Your task to perform on an android device: toggle pop-ups in chrome Image 0: 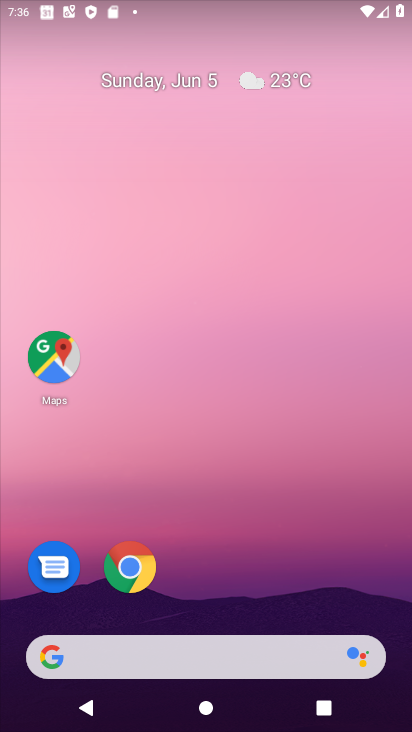
Step 0: drag from (378, 625) to (260, 182)
Your task to perform on an android device: toggle pop-ups in chrome Image 1: 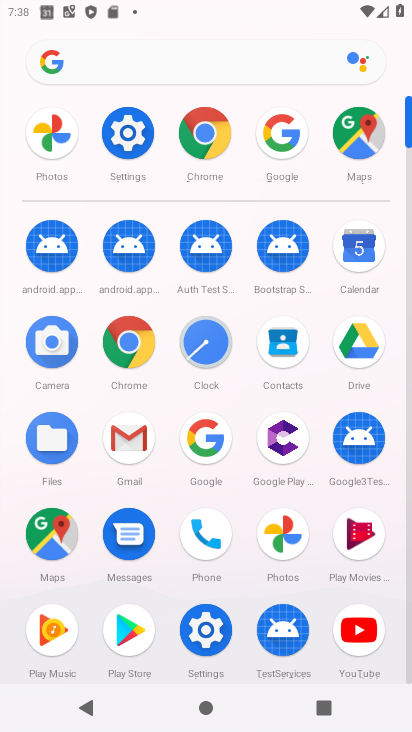
Step 1: click (200, 149)
Your task to perform on an android device: toggle pop-ups in chrome Image 2: 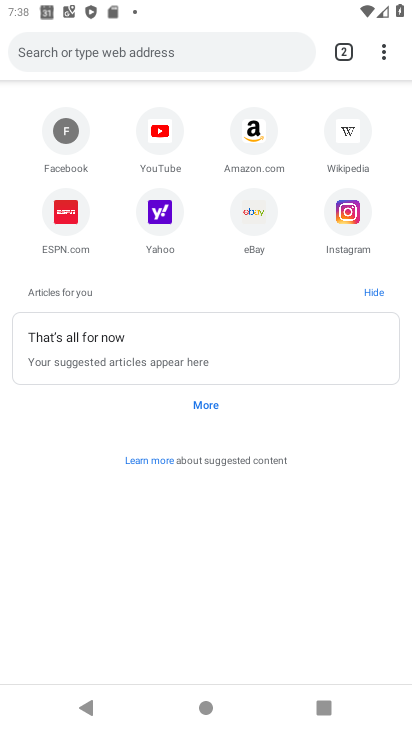
Step 2: click (385, 48)
Your task to perform on an android device: toggle pop-ups in chrome Image 3: 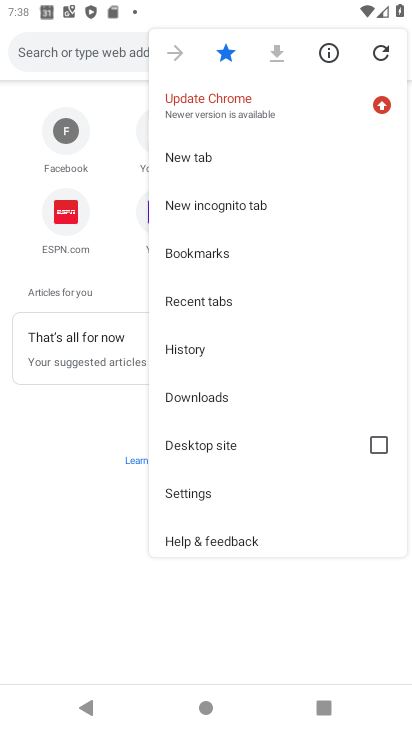
Step 3: click (221, 506)
Your task to perform on an android device: toggle pop-ups in chrome Image 4: 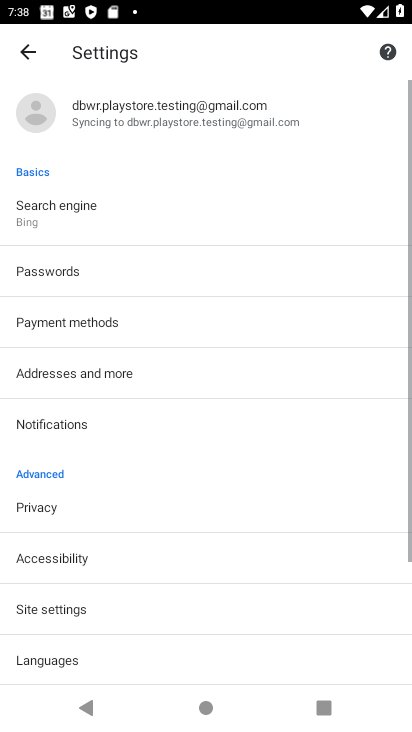
Step 4: click (103, 618)
Your task to perform on an android device: toggle pop-ups in chrome Image 5: 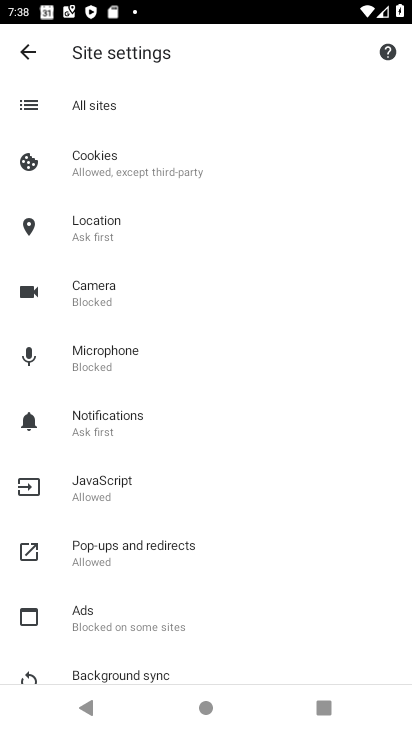
Step 5: click (139, 564)
Your task to perform on an android device: toggle pop-ups in chrome Image 6: 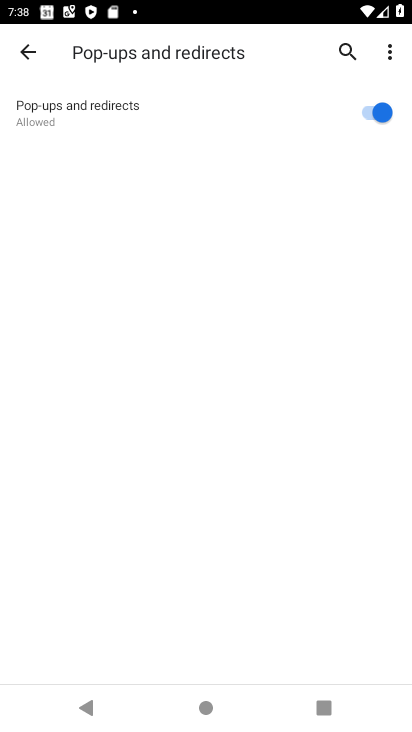
Step 6: click (364, 105)
Your task to perform on an android device: toggle pop-ups in chrome Image 7: 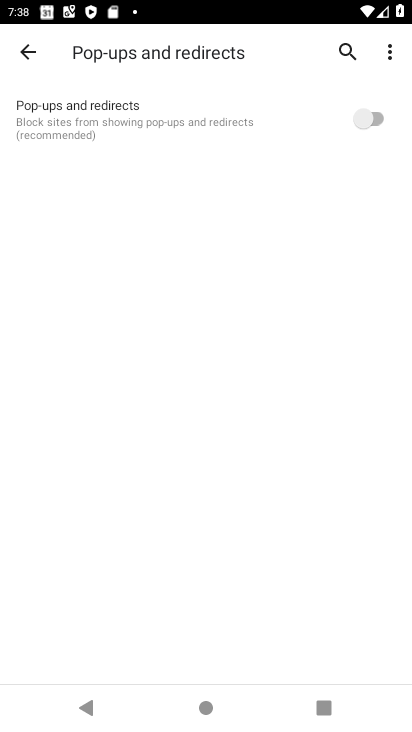
Step 7: task complete